Your task to perform on an android device: open the mobile data screen to see how much data has been used Image 0: 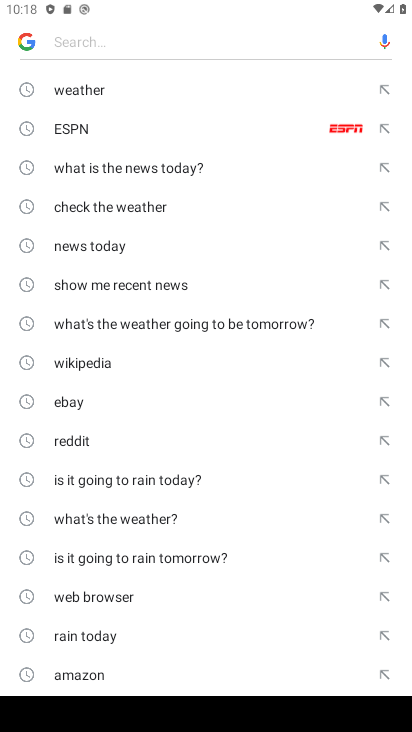
Step 0: press home button
Your task to perform on an android device: open the mobile data screen to see how much data has been used Image 1: 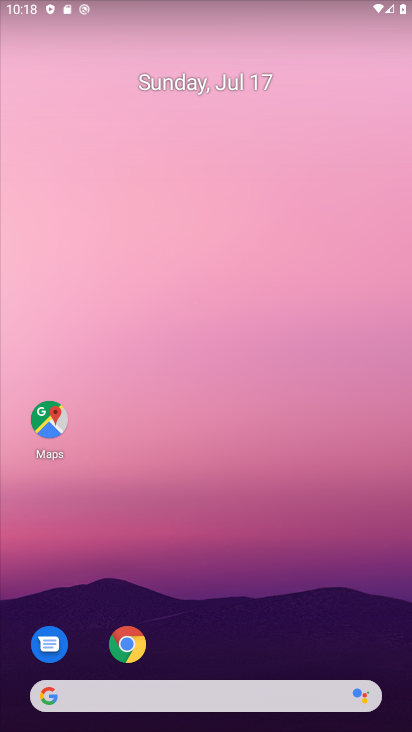
Step 1: drag from (380, 452) to (340, 45)
Your task to perform on an android device: open the mobile data screen to see how much data has been used Image 2: 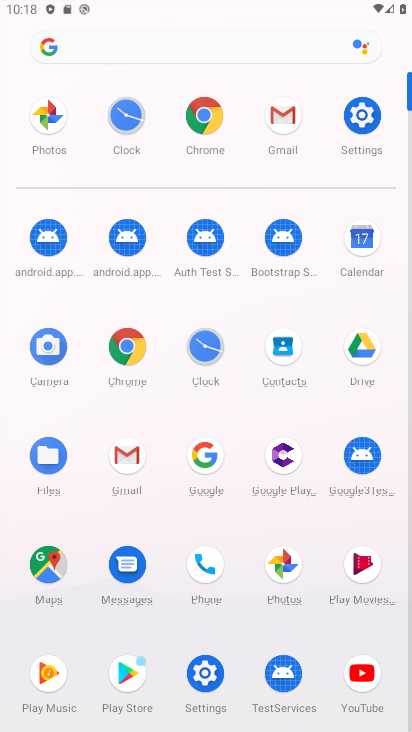
Step 2: click (362, 115)
Your task to perform on an android device: open the mobile data screen to see how much data has been used Image 3: 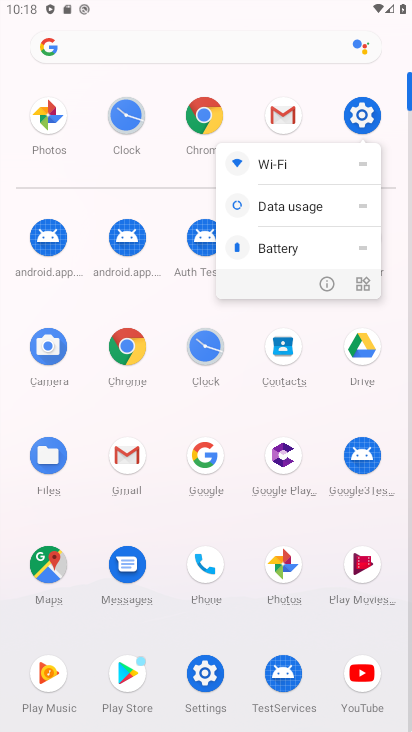
Step 3: click (362, 115)
Your task to perform on an android device: open the mobile data screen to see how much data has been used Image 4: 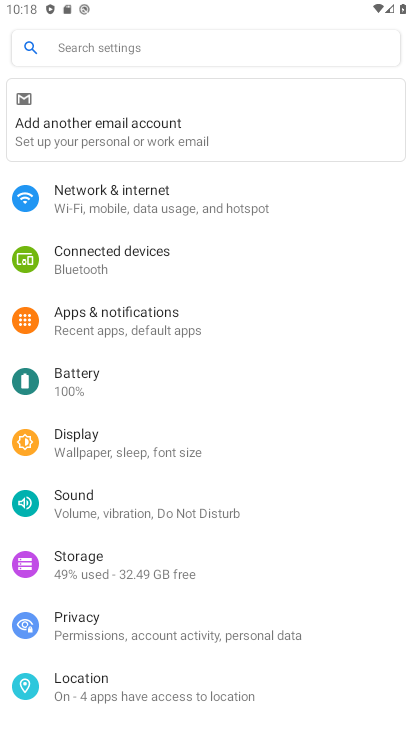
Step 4: click (103, 212)
Your task to perform on an android device: open the mobile data screen to see how much data has been used Image 5: 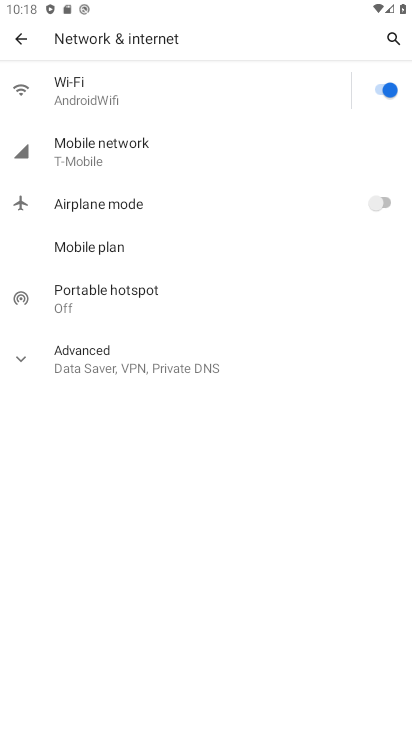
Step 5: click (101, 142)
Your task to perform on an android device: open the mobile data screen to see how much data has been used Image 6: 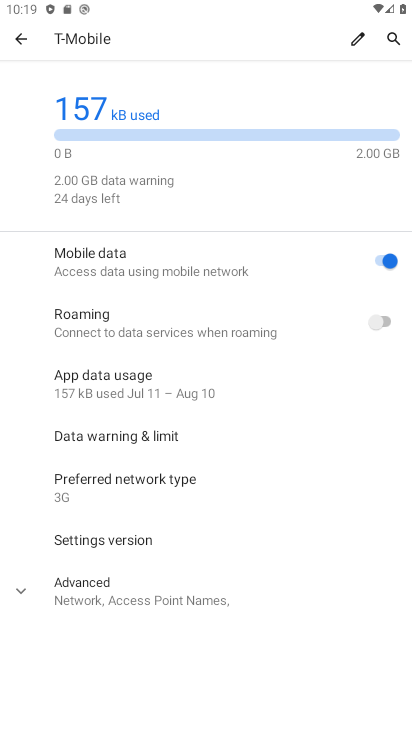
Step 6: task complete